Your task to perform on an android device: turn off airplane mode Image 0: 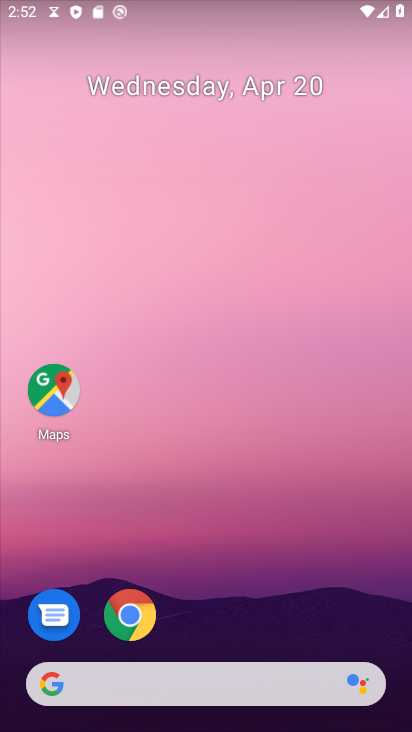
Step 0: drag from (201, 609) to (333, 49)
Your task to perform on an android device: turn off airplane mode Image 1: 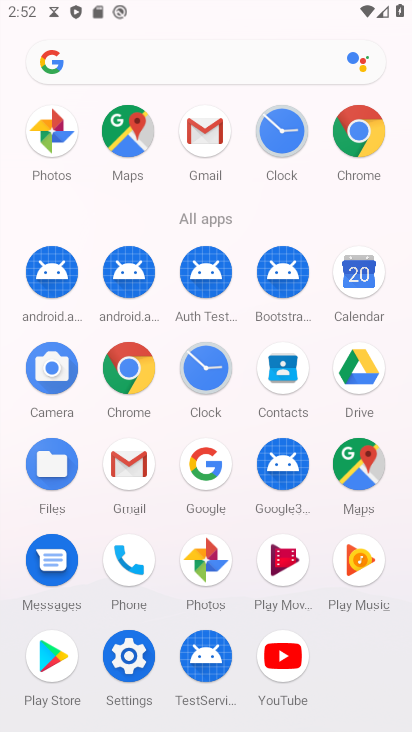
Step 1: click (141, 643)
Your task to perform on an android device: turn off airplane mode Image 2: 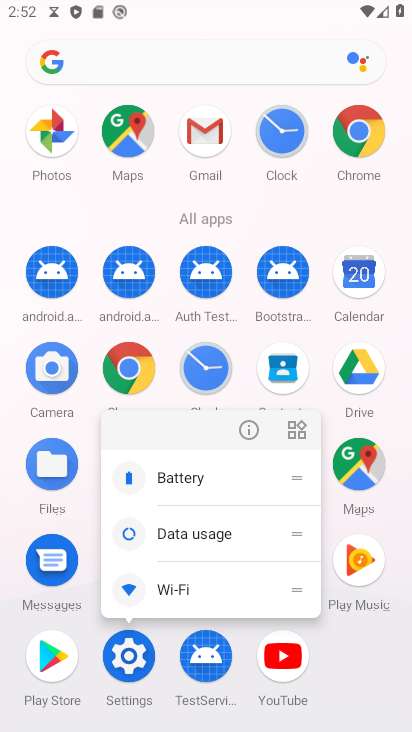
Step 2: click (247, 417)
Your task to perform on an android device: turn off airplane mode Image 3: 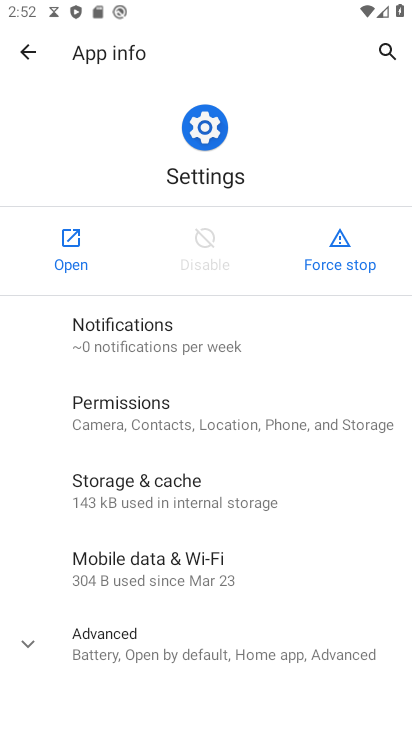
Step 3: click (59, 233)
Your task to perform on an android device: turn off airplane mode Image 4: 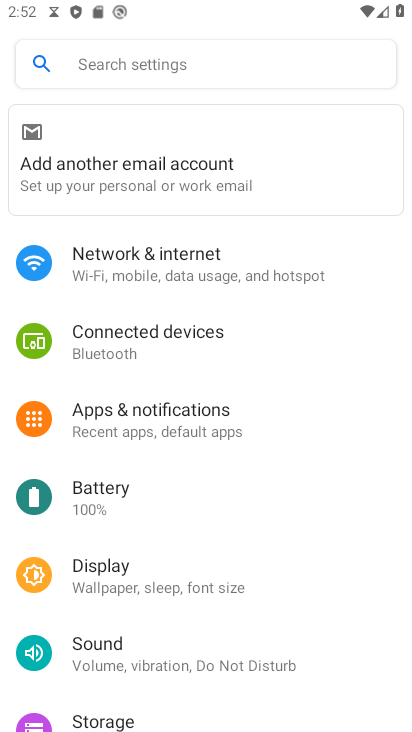
Step 4: click (171, 267)
Your task to perform on an android device: turn off airplane mode Image 5: 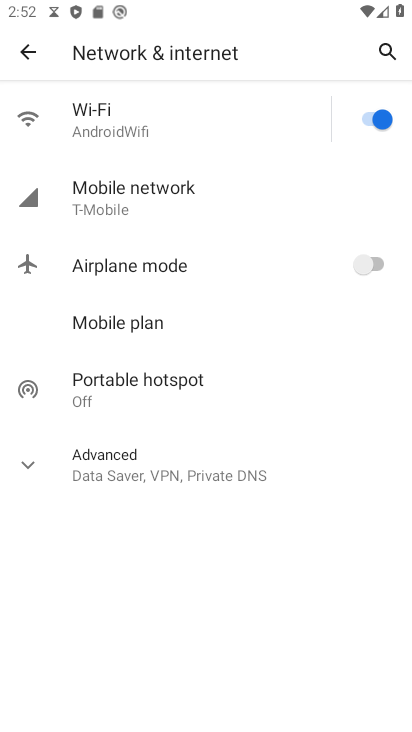
Step 5: click (219, 270)
Your task to perform on an android device: turn off airplane mode Image 6: 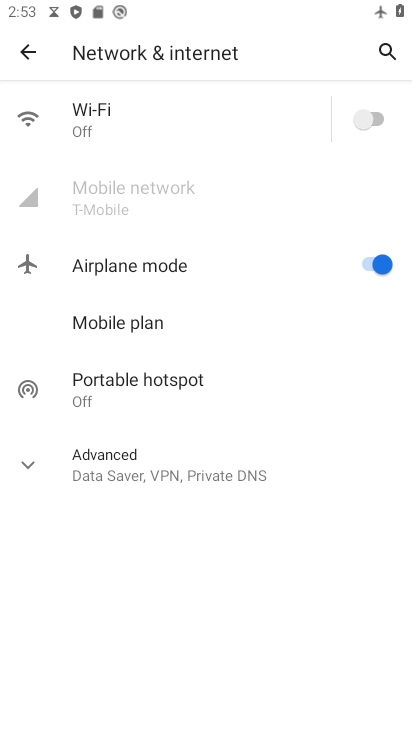
Step 6: click (264, 271)
Your task to perform on an android device: turn off airplane mode Image 7: 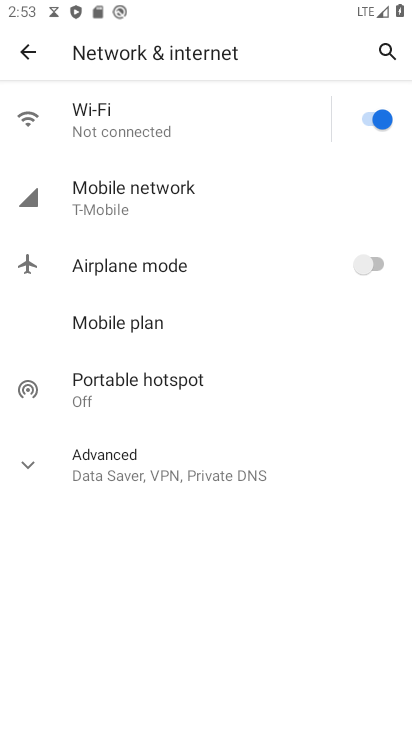
Step 7: task complete